Your task to perform on an android device: turn on showing notifications on the lock screen Image 0: 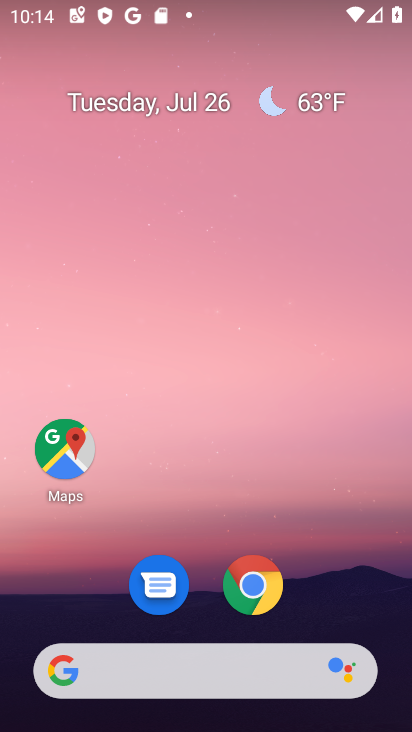
Step 0: drag from (253, 526) to (332, 50)
Your task to perform on an android device: turn on showing notifications on the lock screen Image 1: 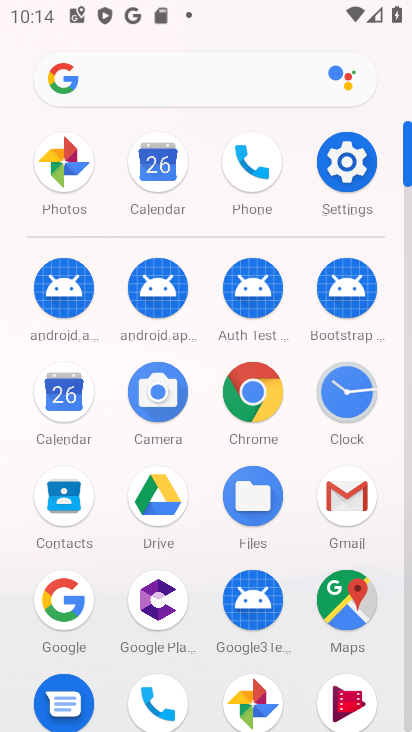
Step 1: click (334, 164)
Your task to perform on an android device: turn on showing notifications on the lock screen Image 2: 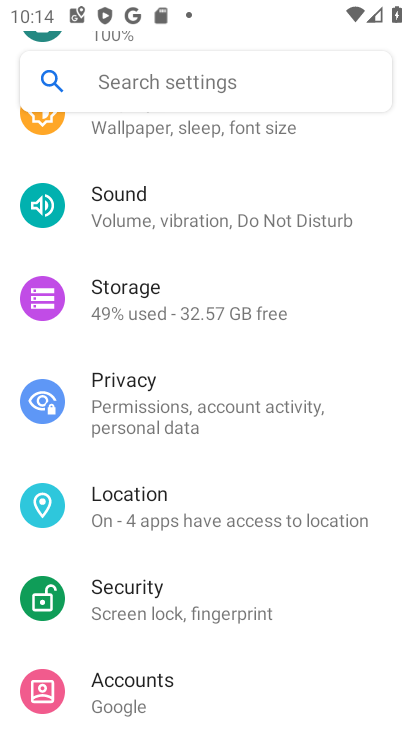
Step 2: drag from (236, 184) to (209, 469)
Your task to perform on an android device: turn on showing notifications on the lock screen Image 3: 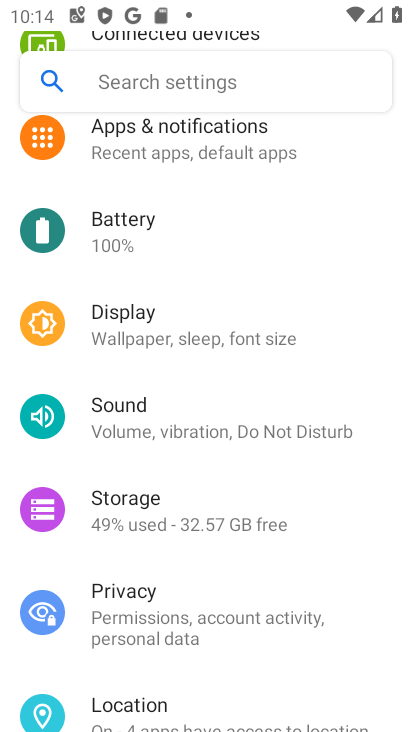
Step 3: drag from (254, 181) to (275, 462)
Your task to perform on an android device: turn on showing notifications on the lock screen Image 4: 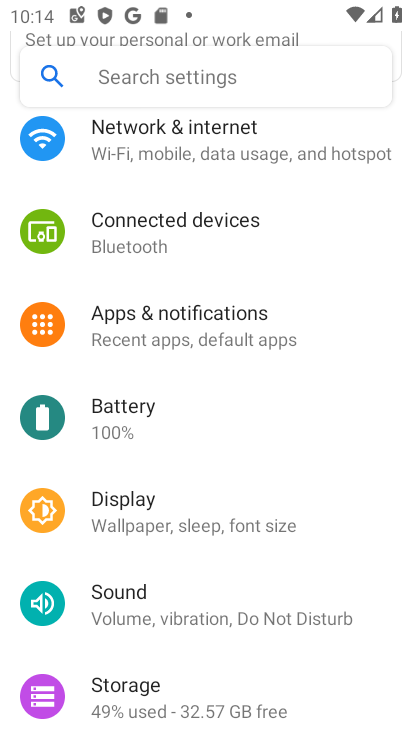
Step 4: click (249, 322)
Your task to perform on an android device: turn on showing notifications on the lock screen Image 5: 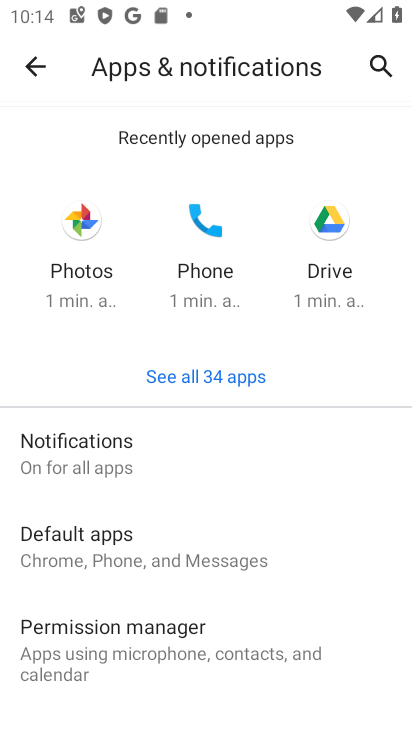
Step 5: click (87, 462)
Your task to perform on an android device: turn on showing notifications on the lock screen Image 6: 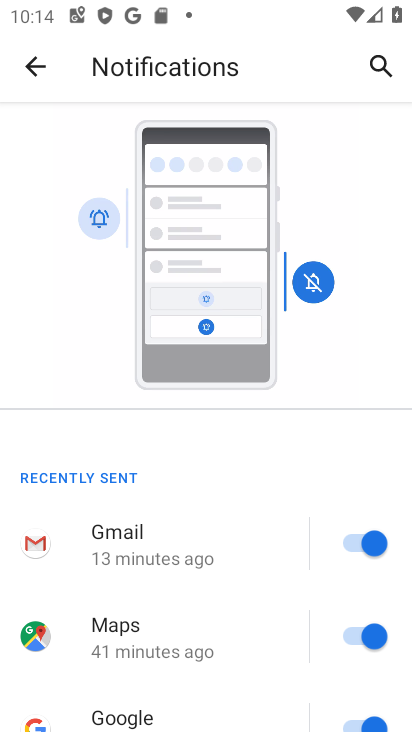
Step 6: drag from (239, 626) to (252, 289)
Your task to perform on an android device: turn on showing notifications on the lock screen Image 7: 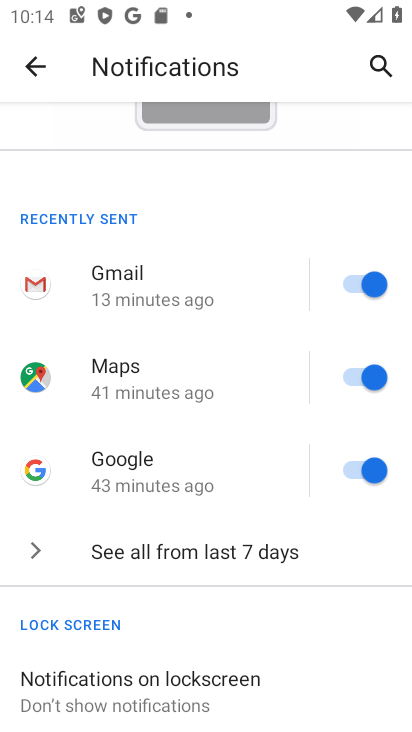
Step 7: drag from (254, 511) to (242, 216)
Your task to perform on an android device: turn on showing notifications on the lock screen Image 8: 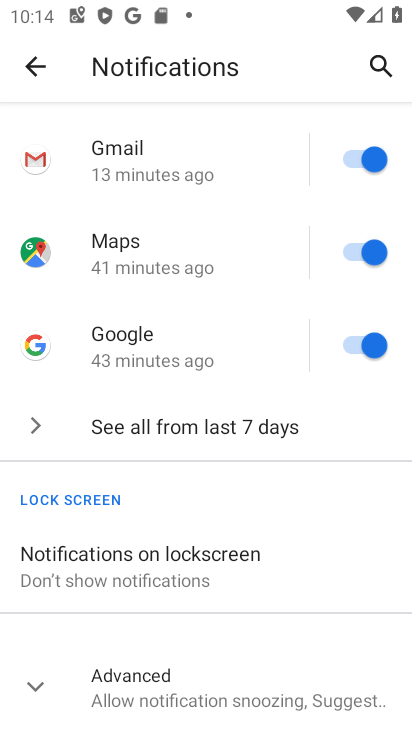
Step 8: click (167, 568)
Your task to perform on an android device: turn on showing notifications on the lock screen Image 9: 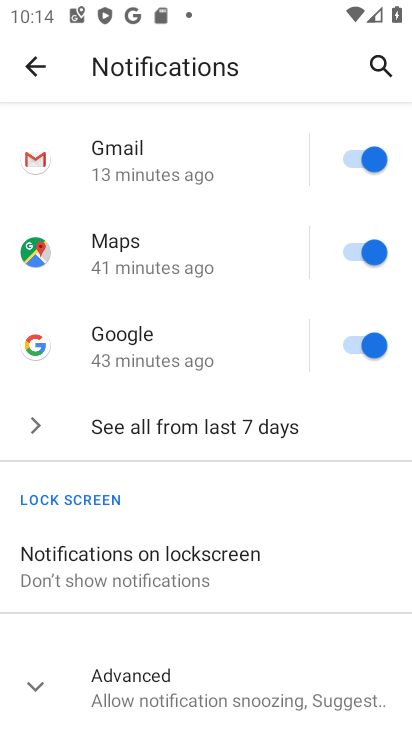
Step 9: drag from (218, 414) to (261, 152)
Your task to perform on an android device: turn on showing notifications on the lock screen Image 10: 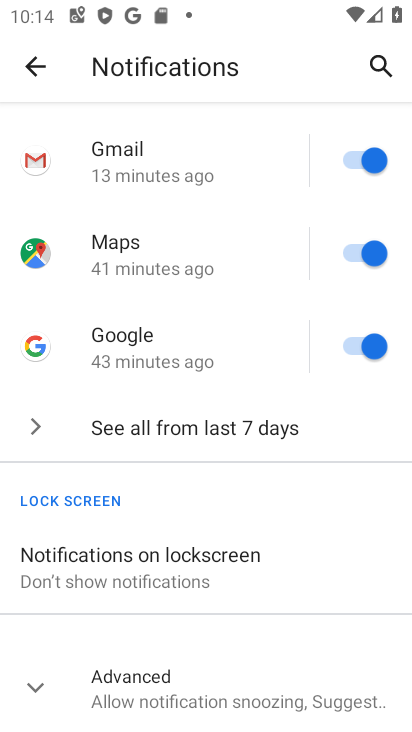
Step 10: click (131, 559)
Your task to perform on an android device: turn on showing notifications on the lock screen Image 11: 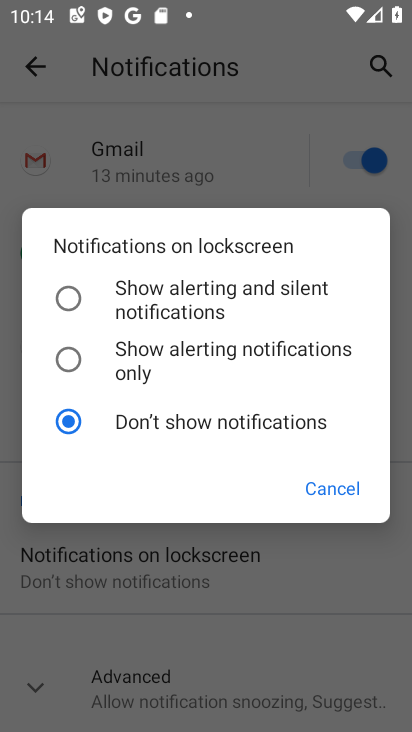
Step 11: click (65, 289)
Your task to perform on an android device: turn on showing notifications on the lock screen Image 12: 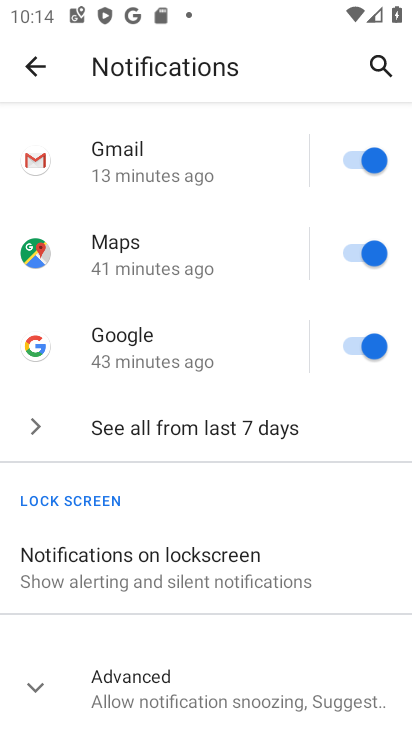
Step 12: task complete